Your task to perform on an android device: turn off wifi Image 0: 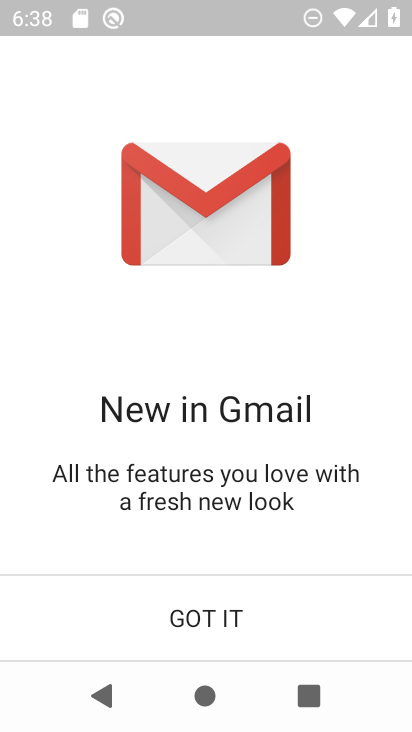
Step 0: press home button
Your task to perform on an android device: turn off wifi Image 1: 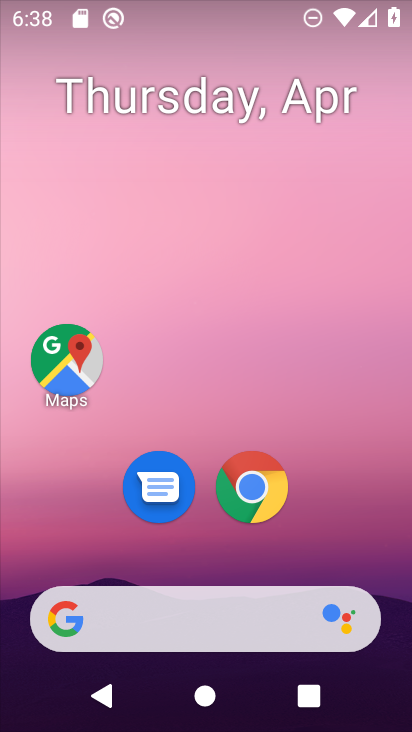
Step 1: task complete